Your task to perform on an android device: stop showing notifications on the lock screen Image 0: 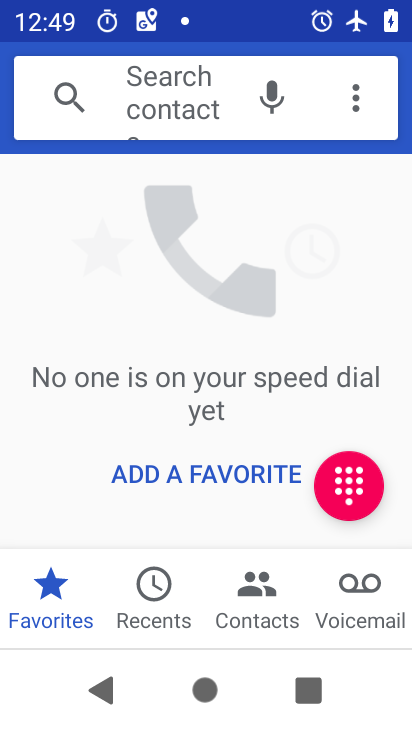
Step 0: press home button
Your task to perform on an android device: stop showing notifications on the lock screen Image 1: 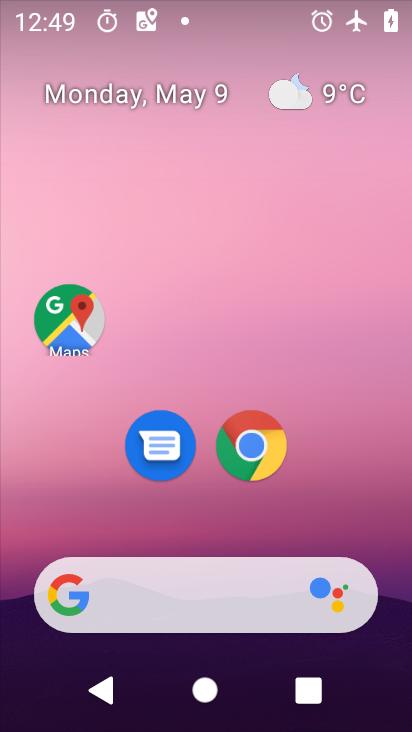
Step 1: drag from (411, 315) to (412, 22)
Your task to perform on an android device: stop showing notifications on the lock screen Image 2: 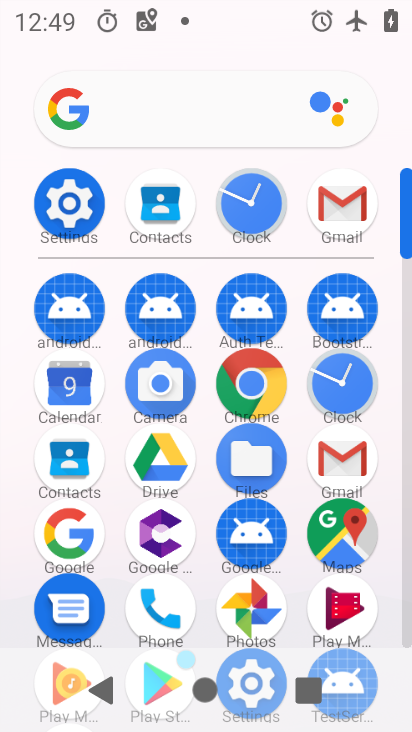
Step 2: click (64, 203)
Your task to perform on an android device: stop showing notifications on the lock screen Image 3: 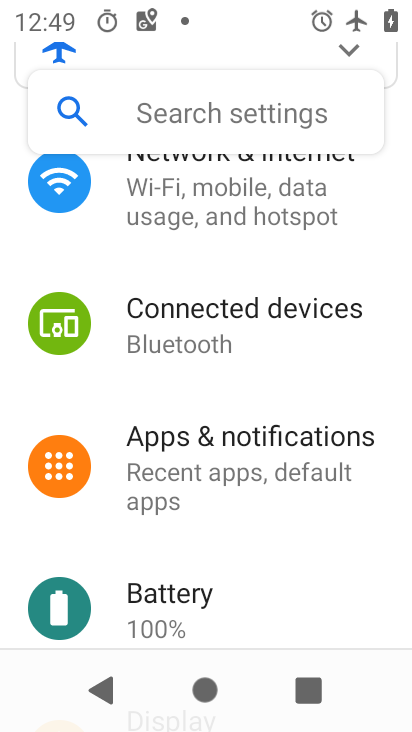
Step 3: click (256, 446)
Your task to perform on an android device: stop showing notifications on the lock screen Image 4: 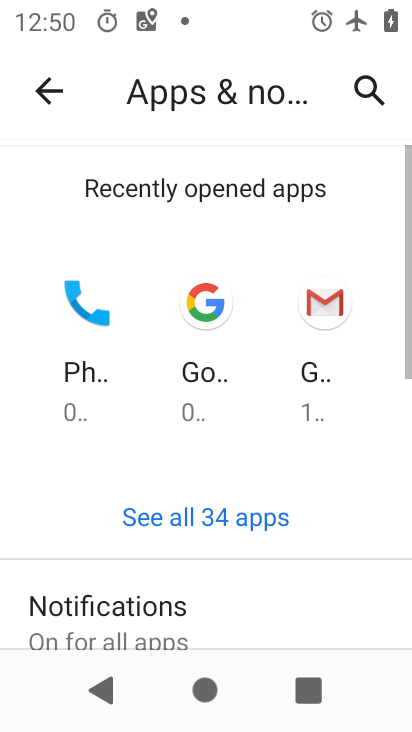
Step 4: drag from (216, 579) to (239, 214)
Your task to perform on an android device: stop showing notifications on the lock screen Image 5: 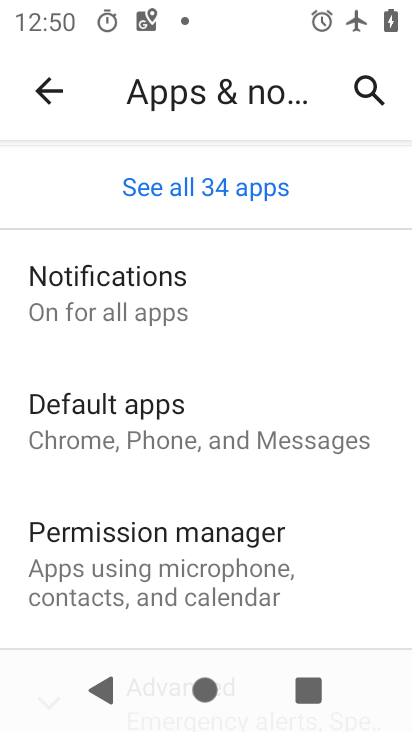
Step 5: click (87, 303)
Your task to perform on an android device: stop showing notifications on the lock screen Image 6: 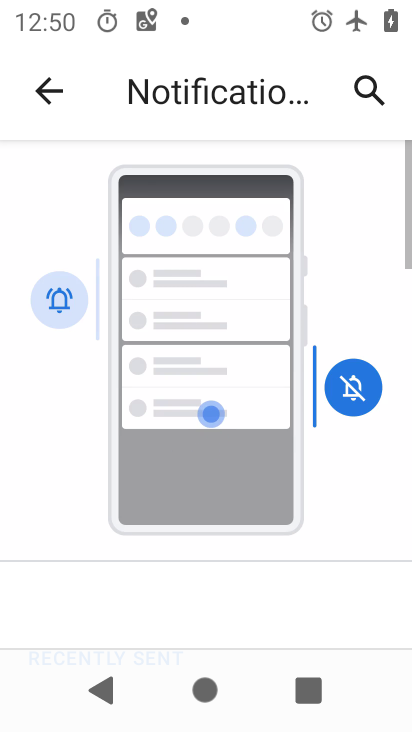
Step 6: drag from (207, 555) to (206, 149)
Your task to perform on an android device: stop showing notifications on the lock screen Image 7: 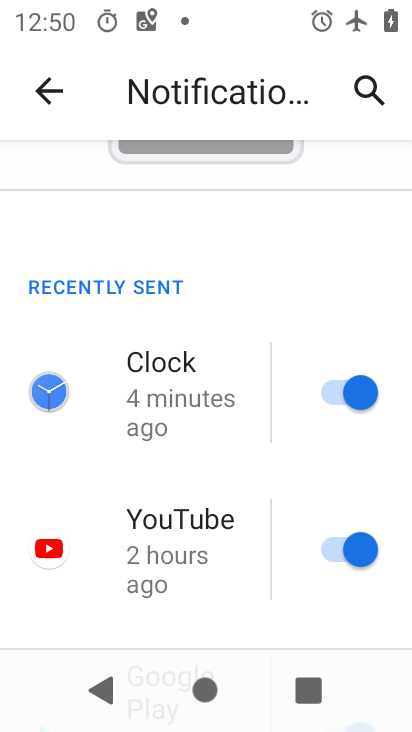
Step 7: drag from (143, 555) to (161, 172)
Your task to perform on an android device: stop showing notifications on the lock screen Image 8: 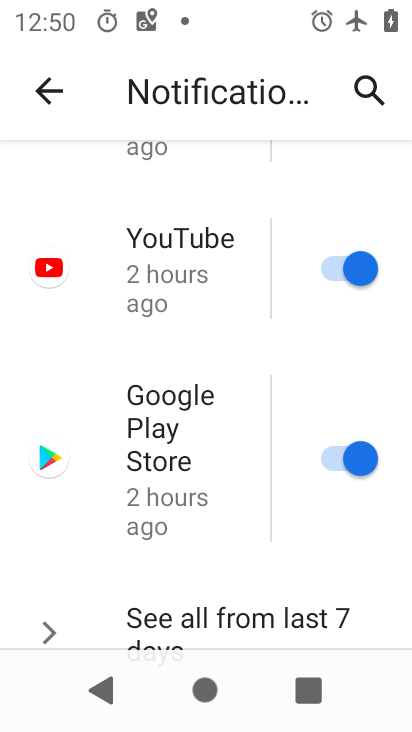
Step 8: drag from (136, 569) to (151, 200)
Your task to perform on an android device: stop showing notifications on the lock screen Image 9: 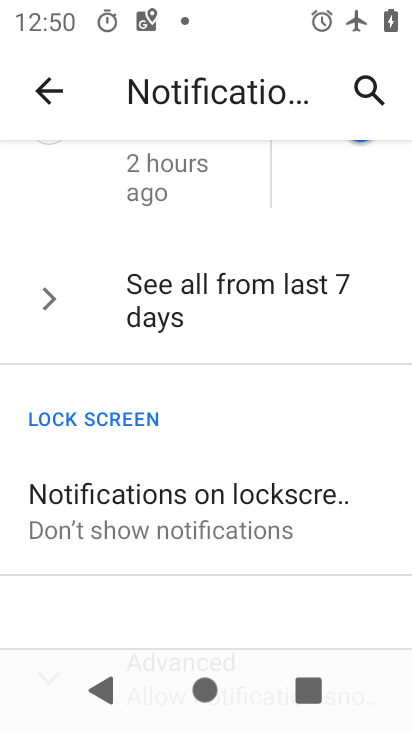
Step 9: click (136, 523)
Your task to perform on an android device: stop showing notifications on the lock screen Image 10: 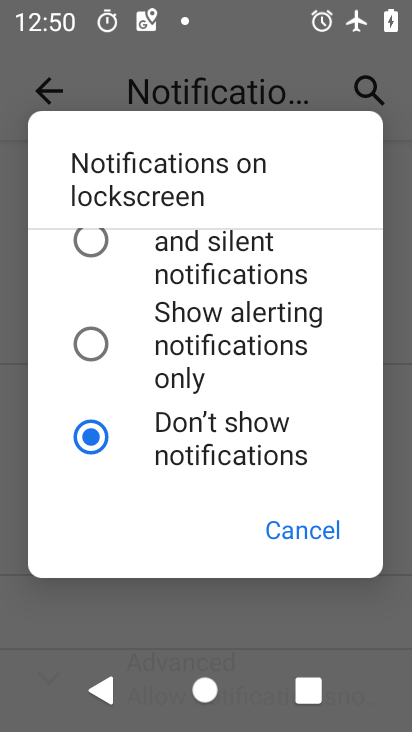
Step 10: task complete